Your task to perform on an android device: Go to privacy settings Image 0: 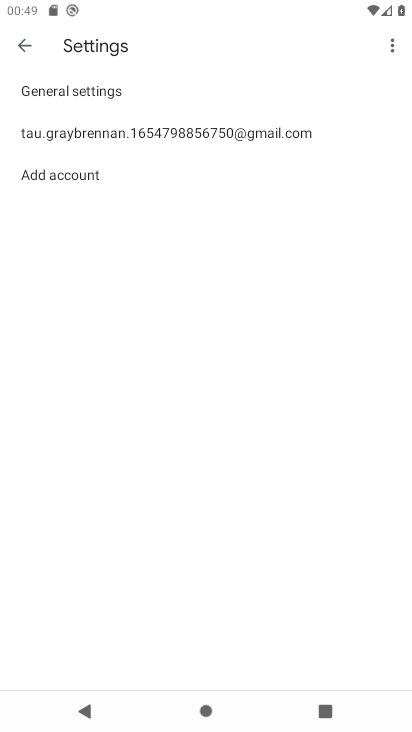
Step 0: press home button
Your task to perform on an android device: Go to privacy settings Image 1: 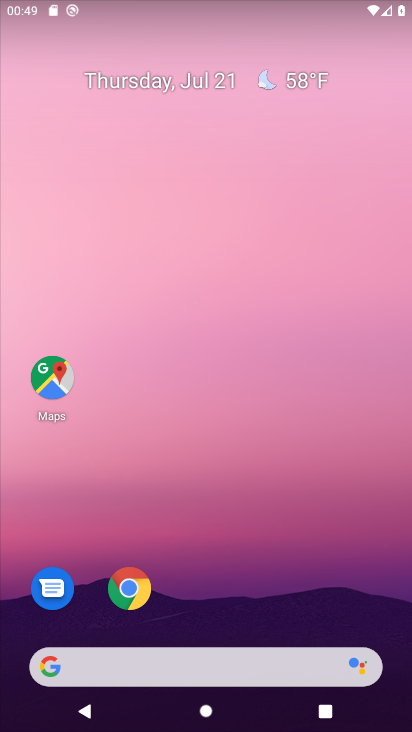
Step 1: drag from (192, 619) to (178, 4)
Your task to perform on an android device: Go to privacy settings Image 2: 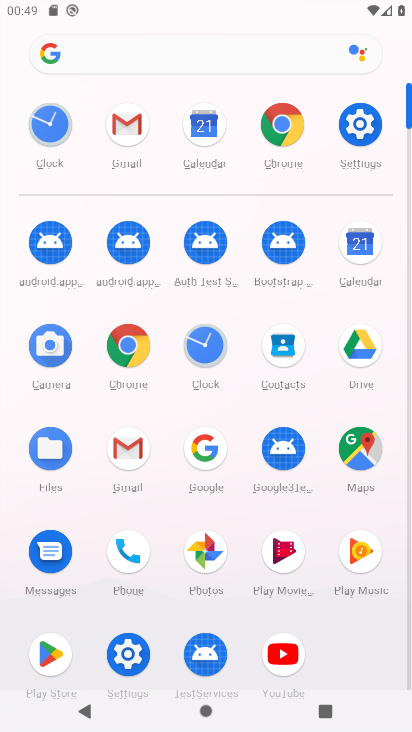
Step 2: click (127, 650)
Your task to perform on an android device: Go to privacy settings Image 3: 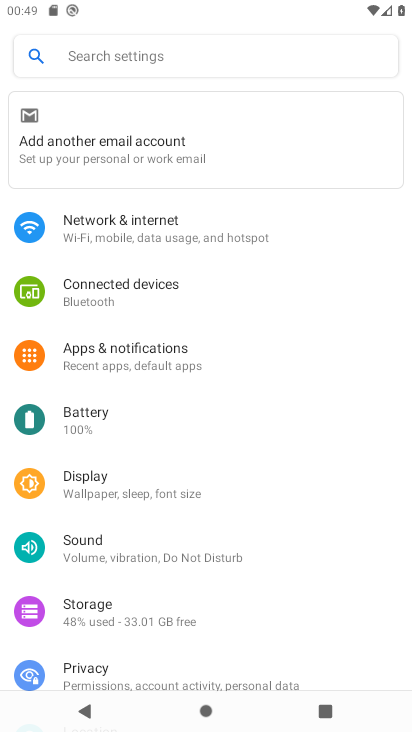
Step 3: drag from (155, 551) to (171, 226)
Your task to perform on an android device: Go to privacy settings Image 4: 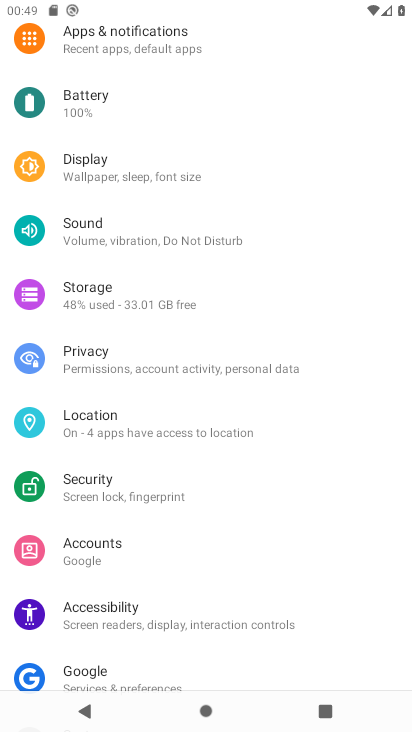
Step 4: drag from (109, 569) to (135, 405)
Your task to perform on an android device: Go to privacy settings Image 5: 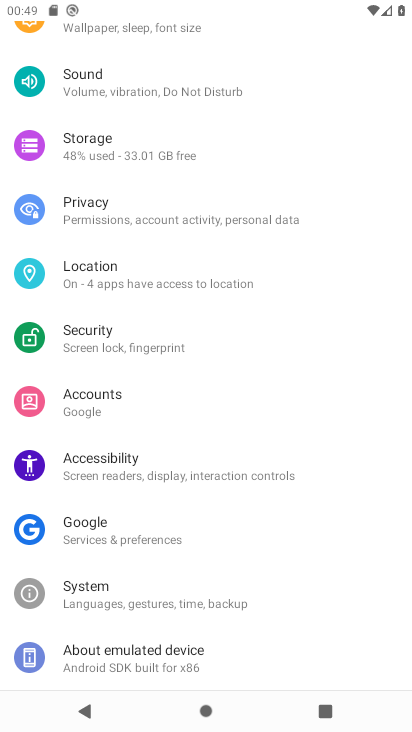
Step 5: click (126, 211)
Your task to perform on an android device: Go to privacy settings Image 6: 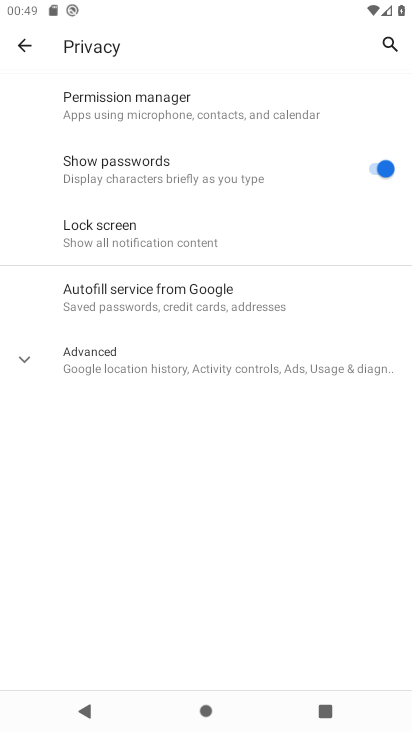
Step 6: task complete